Your task to perform on an android device: Open Google Chrome and open the bookmarks view Image 0: 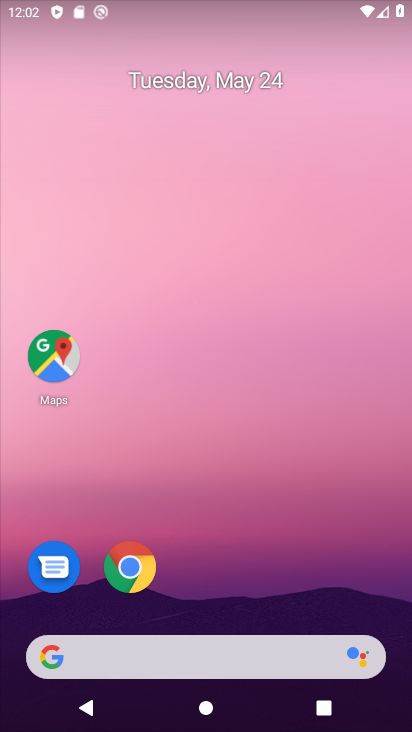
Step 0: click (124, 574)
Your task to perform on an android device: Open Google Chrome and open the bookmarks view Image 1: 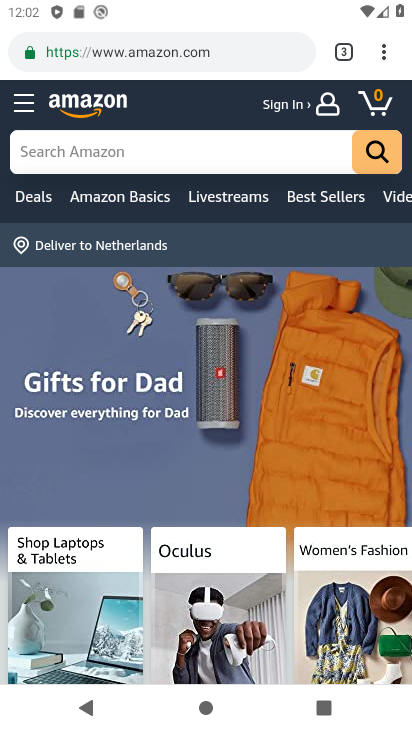
Step 1: click (377, 57)
Your task to perform on an android device: Open Google Chrome and open the bookmarks view Image 2: 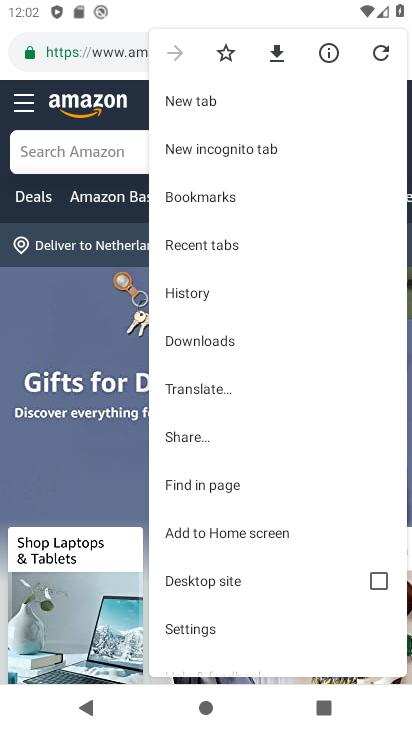
Step 2: click (252, 195)
Your task to perform on an android device: Open Google Chrome and open the bookmarks view Image 3: 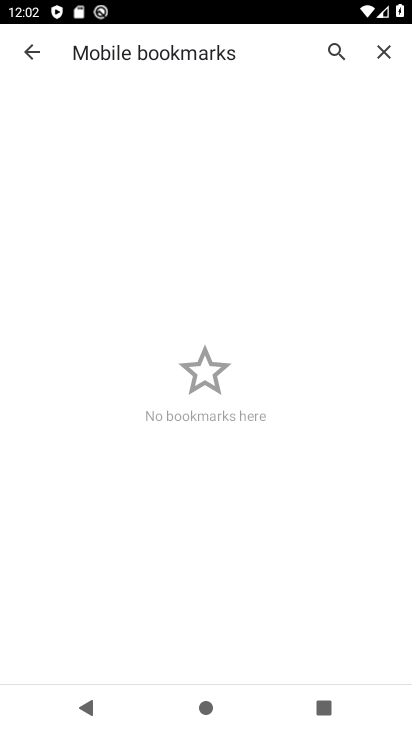
Step 3: task complete